Your task to perform on an android device: turn on notifications settings in the gmail app Image 0: 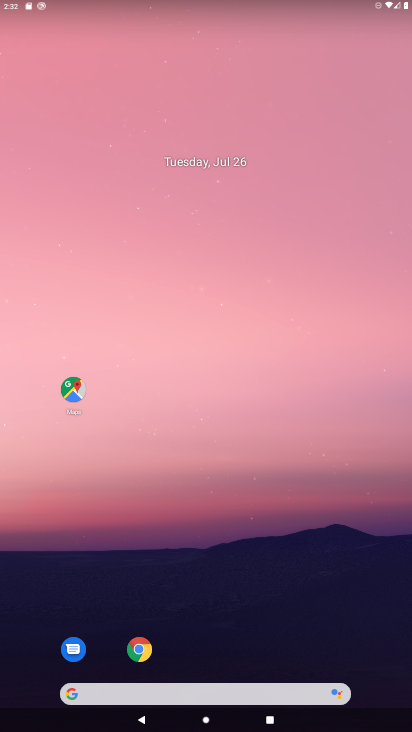
Step 0: drag from (210, 688) to (227, 118)
Your task to perform on an android device: turn on notifications settings in the gmail app Image 1: 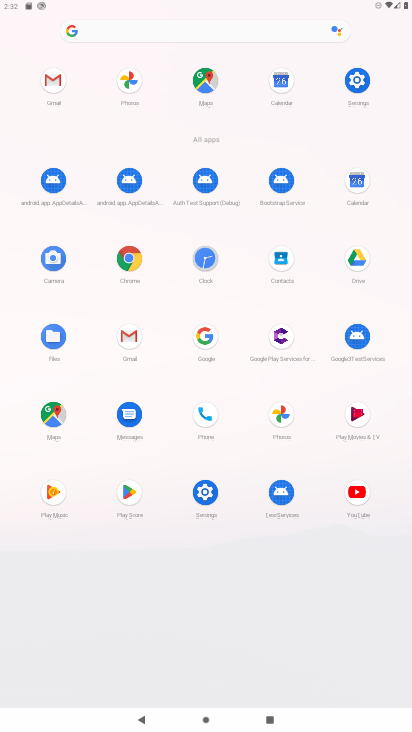
Step 1: click (122, 346)
Your task to perform on an android device: turn on notifications settings in the gmail app Image 2: 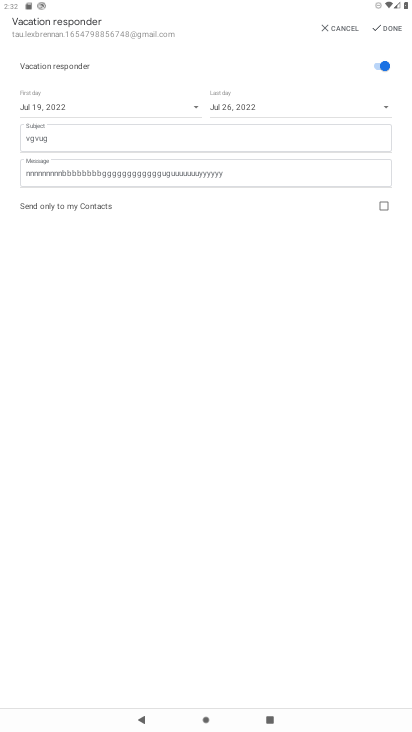
Step 2: press back button
Your task to perform on an android device: turn on notifications settings in the gmail app Image 3: 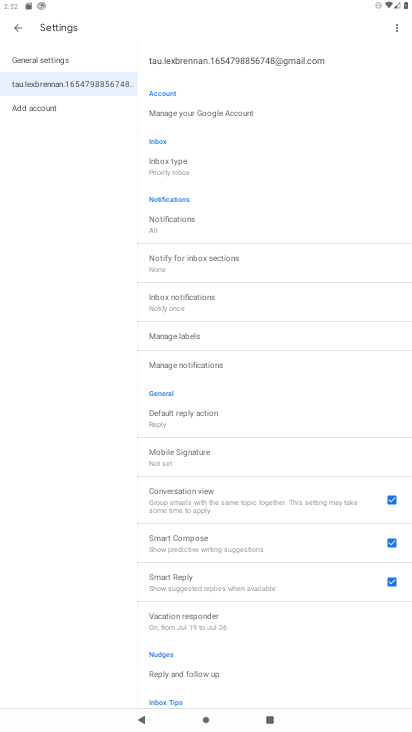
Step 3: click (208, 365)
Your task to perform on an android device: turn on notifications settings in the gmail app Image 4: 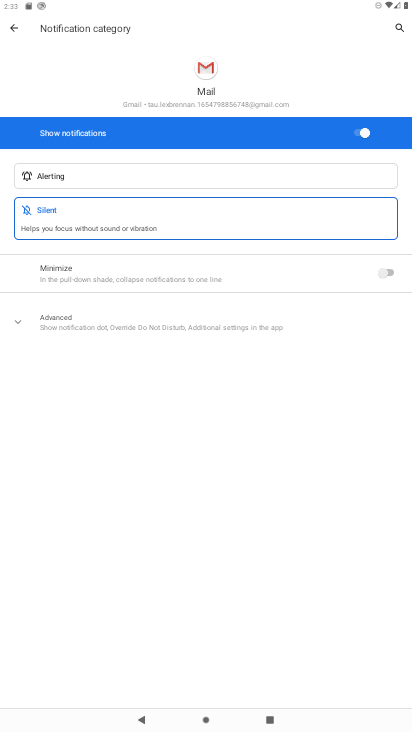
Step 4: click (93, 176)
Your task to perform on an android device: turn on notifications settings in the gmail app Image 5: 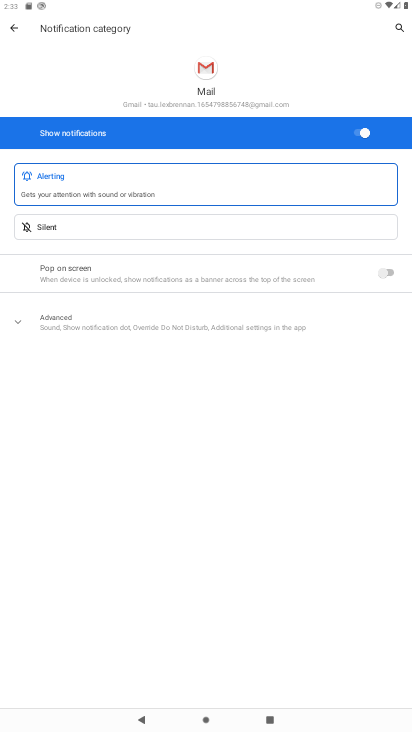
Step 5: task complete